Your task to perform on an android device: Open Chrome and go to settings Image 0: 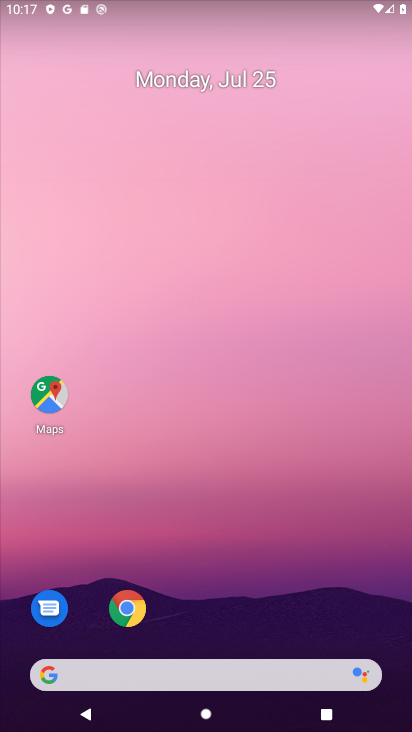
Step 0: drag from (287, 616) to (295, 166)
Your task to perform on an android device: Open Chrome and go to settings Image 1: 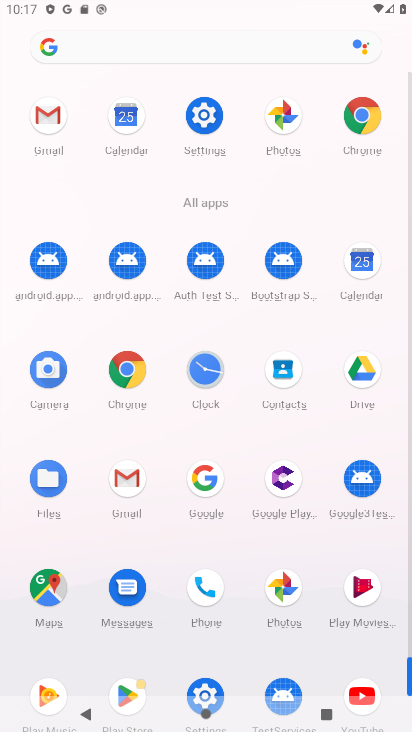
Step 1: click (360, 113)
Your task to perform on an android device: Open Chrome and go to settings Image 2: 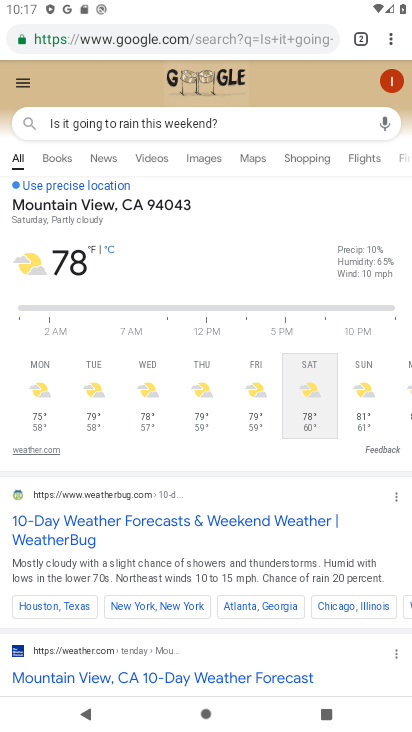
Step 2: click (398, 39)
Your task to perform on an android device: Open Chrome and go to settings Image 3: 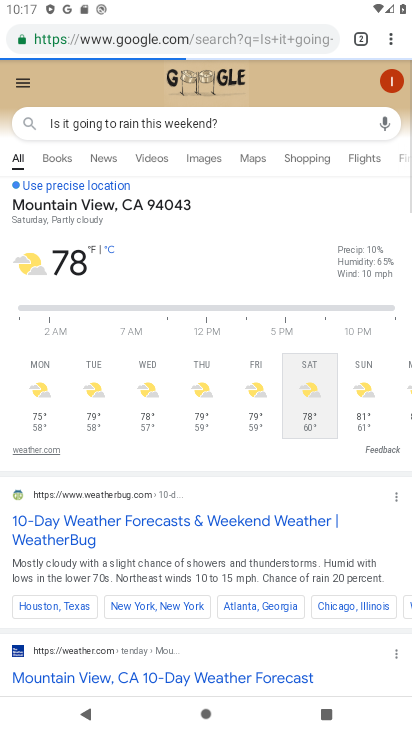
Step 3: click (398, 39)
Your task to perform on an android device: Open Chrome and go to settings Image 4: 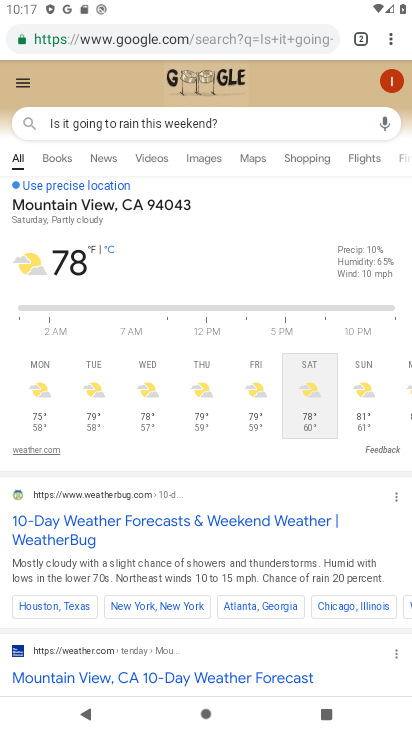
Step 4: click (391, 34)
Your task to perform on an android device: Open Chrome and go to settings Image 5: 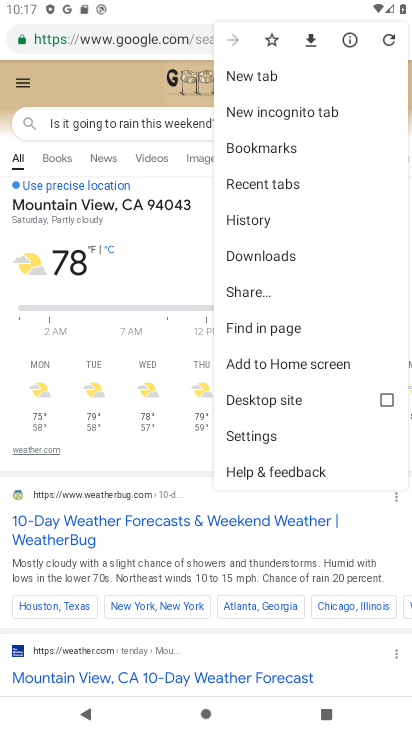
Step 5: click (247, 426)
Your task to perform on an android device: Open Chrome and go to settings Image 6: 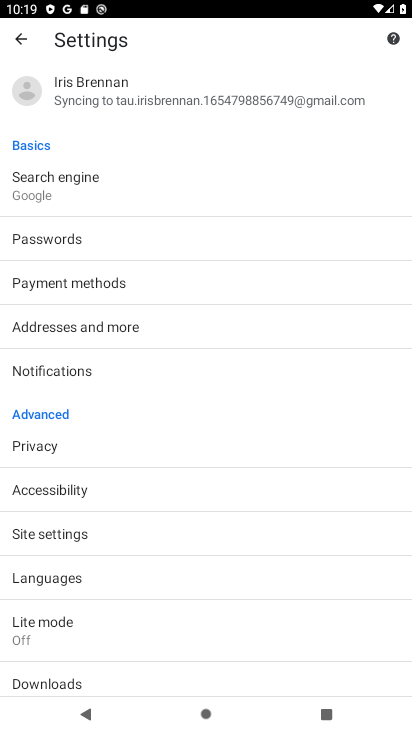
Step 6: task complete